Your task to perform on an android device: change the clock display to analog Image 0: 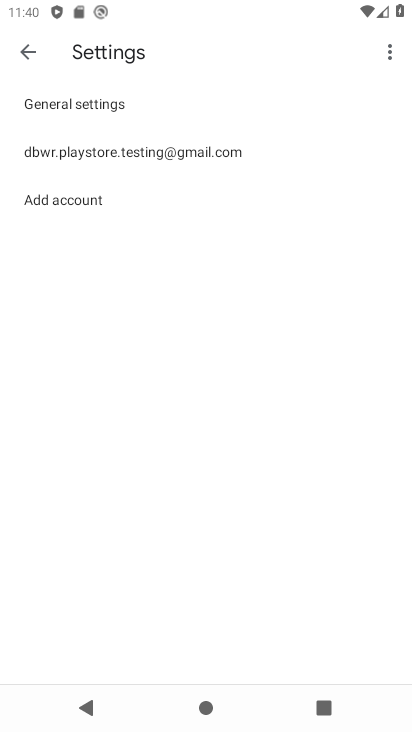
Step 0: press home button
Your task to perform on an android device: change the clock display to analog Image 1: 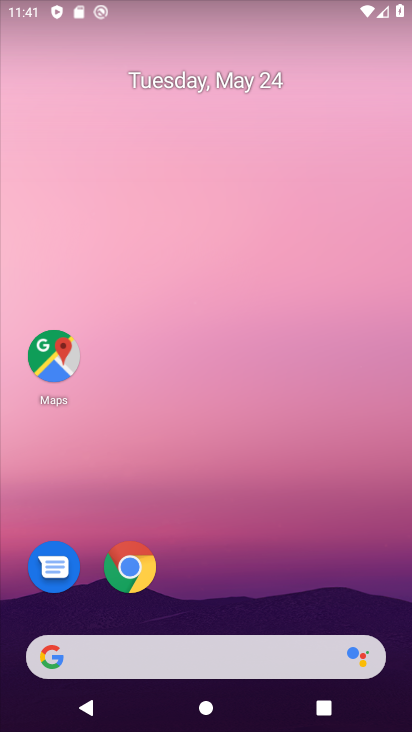
Step 1: click (396, 156)
Your task to perform on an android device: change the clock display to analog Image 2: 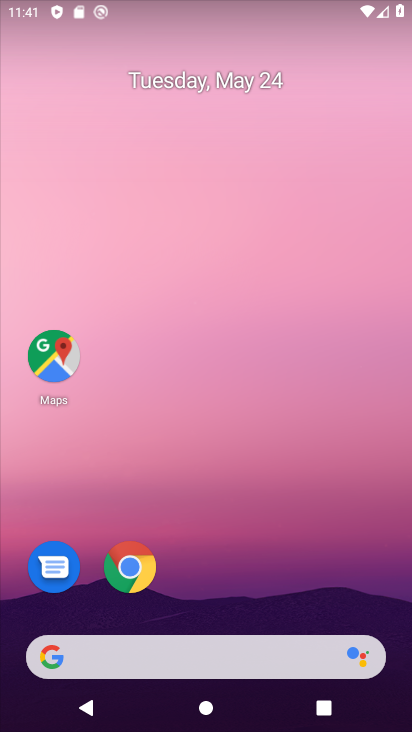
Step 2: drag from (251, 594) to (209, 158)
Your task to perform on an android device: change the clock display to analog Image 3: 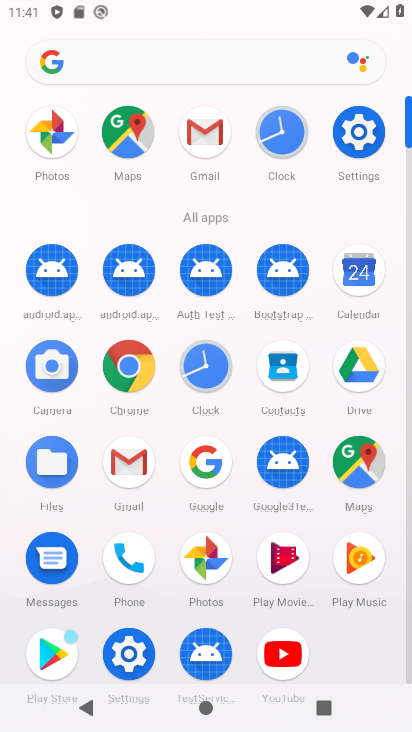
Step 3: click (211, 372)
Your task to perform on an android device: change the clock display to analog Image 4: 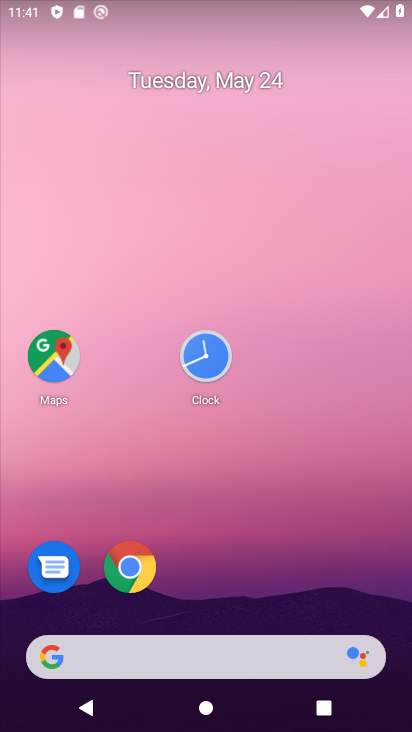
Step 4: click (193, 355)
Your task to perform on an android device: change the clock display to analog Image 5: 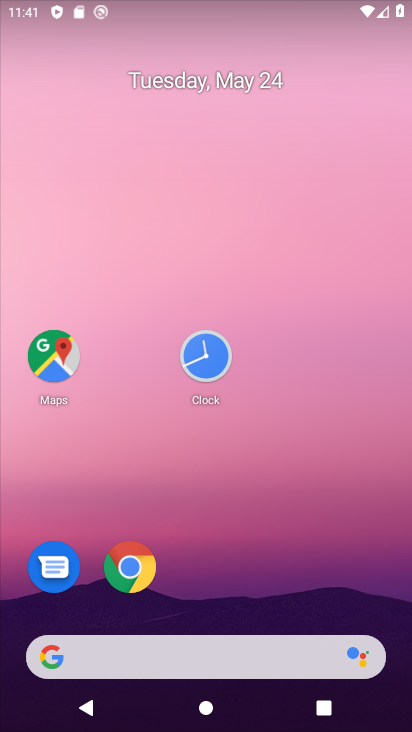
Step 5: click (232, 354)
Your task to perform on an android device: change the clock display to analog Image 6: 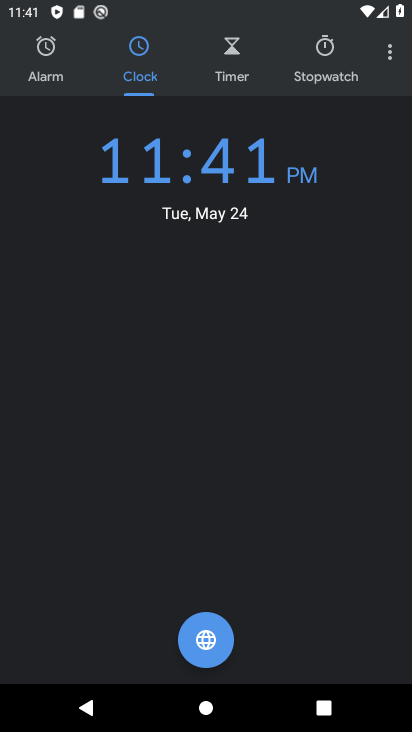
Step 6: click (396, 59)
Your task to perform on an android device: change the clock display to analog Image 7: 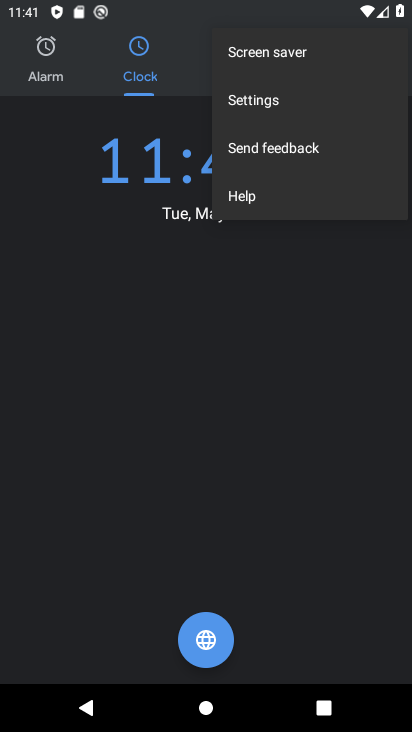
Step 7: click (315, 93)
Your task to perform on an android device: change the clock display to analog Image 8: 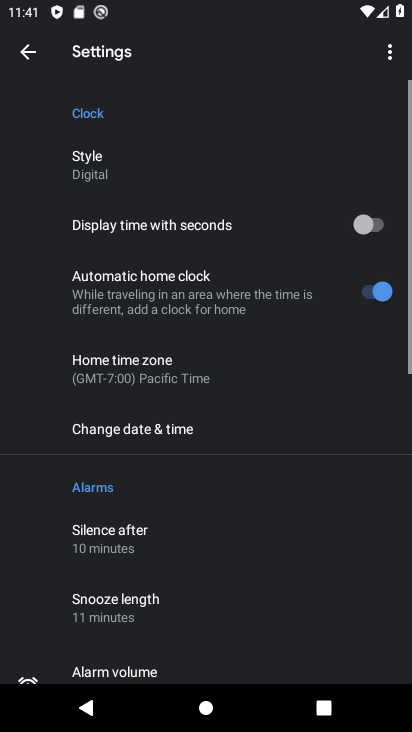
Step 8: click (165, 172)
Your task to perform on an android device: change the clock display to analog Image 9: 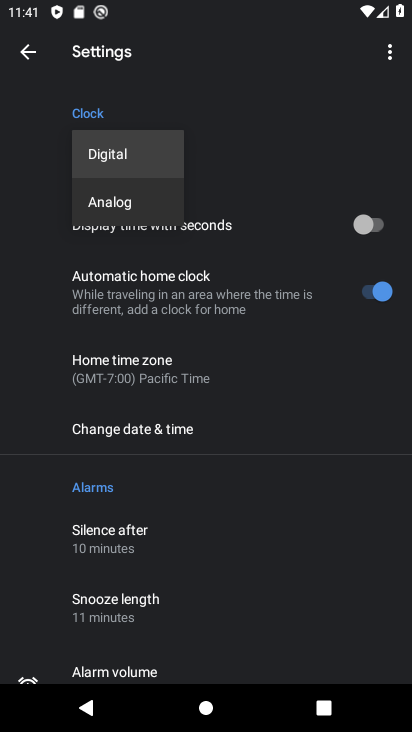
Step 9: click (126, 202)
Your task to perform on an android device: change the clock display to analog Image 10: 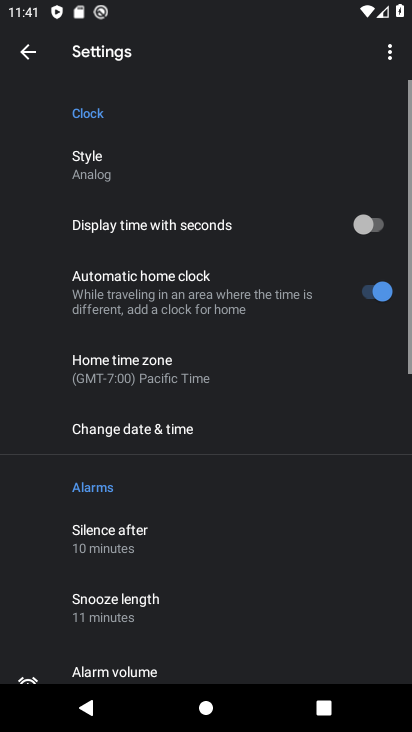
Step 10: task complete